Your task to perform on an android device: Go to ESPN.com Image 0: 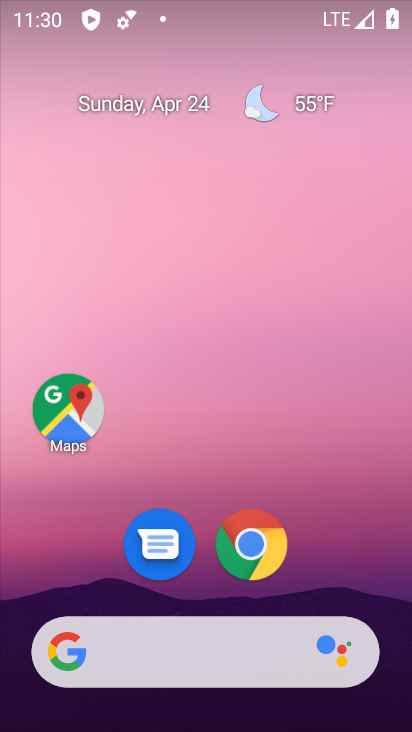
Step 0: click (263, 548)
Your task to perform on an android device: Go to ESPN.com Image 1: 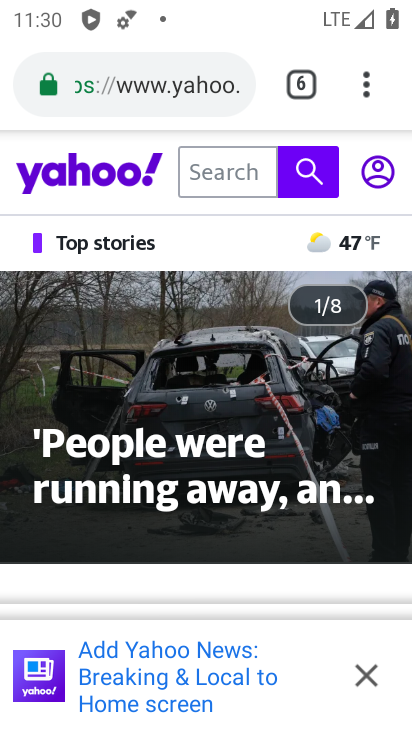
Step 1: click (307, 86)
Your task to perform on an android device: Go to ESPN.com Image 2: 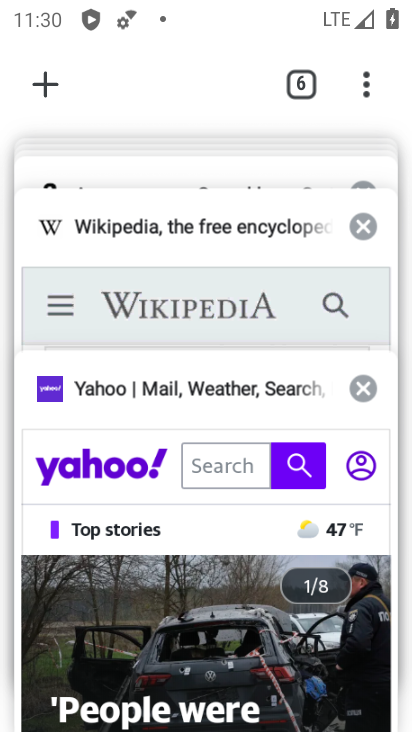
Step 2: click (41, 82)
Your task to perform on an android device: Go to ESPN.com Image 3: 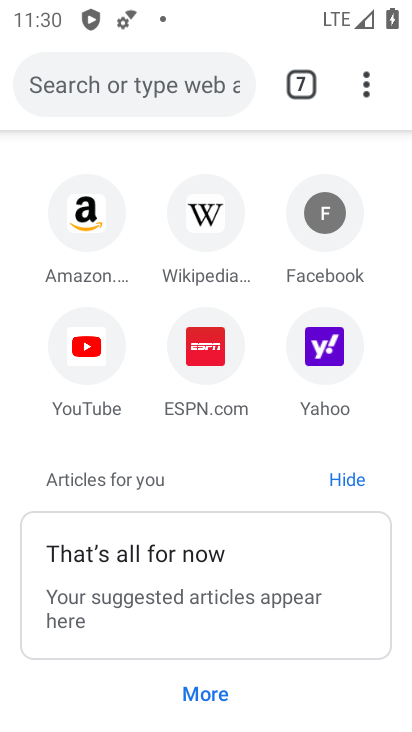
Step 3: click (203, 353)
Your task to perform on an android device: Go to ESPN.com Image 4: 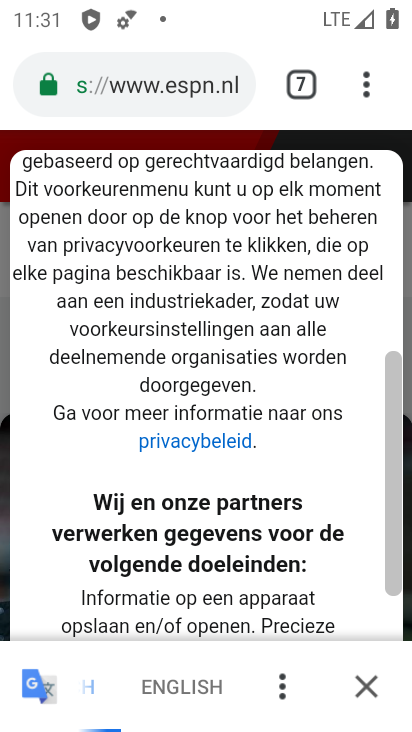
Step 4: task complete